Your task to perform on an android device: turn off data saver in the chrome app Image 0: 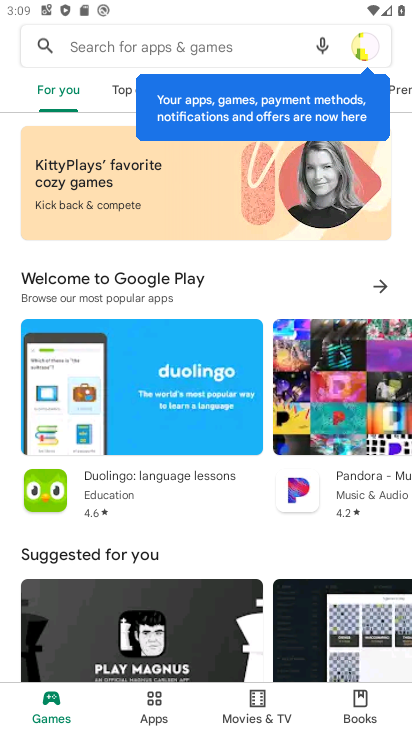
Step 0: press home button
Your task to perform on an android device: turn off data saver in the chrome app Image 1: 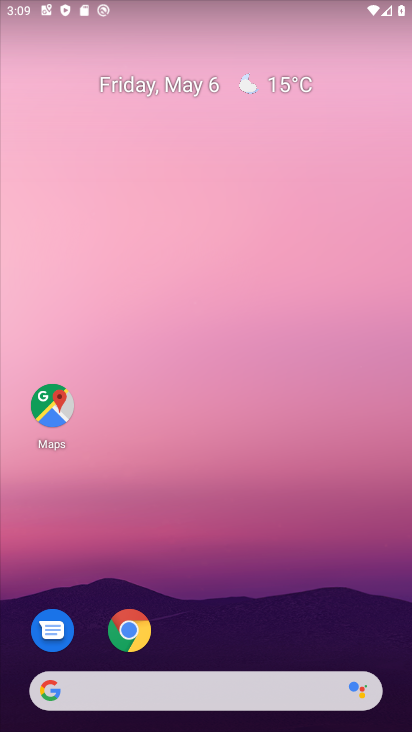
Step 1: click (125, 626)
Your task to perform on an android device: turn off data saver in the chrome app Image 2: 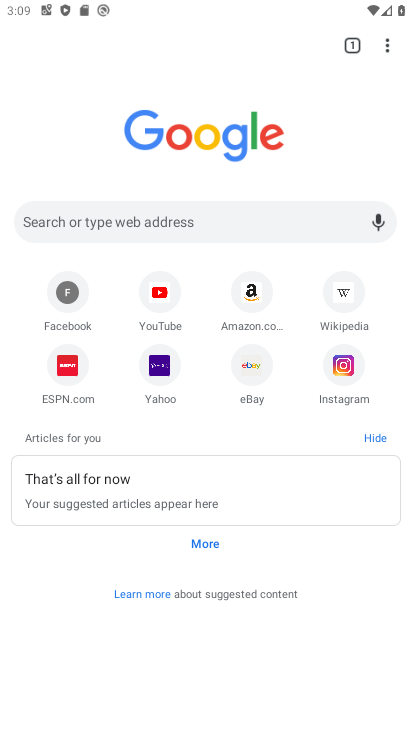
Step 2: click (384, 37)
Your task to perform on an android device: turn off data saver in the chrome app Image 3: 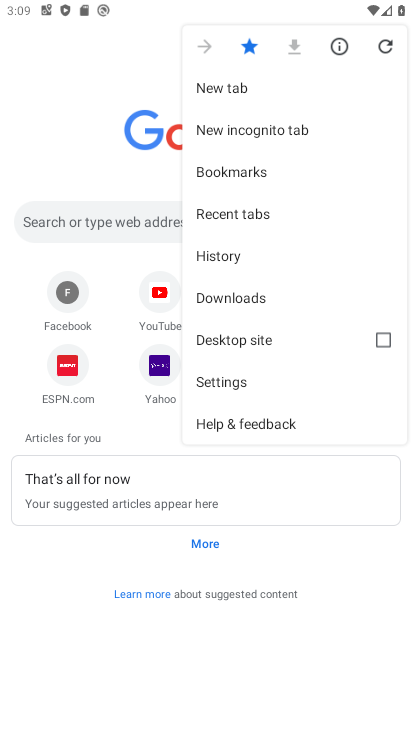
Step 3: click (231, 392)
Your task to perform on an android device: turn off data saver in the chrome app Image 4: 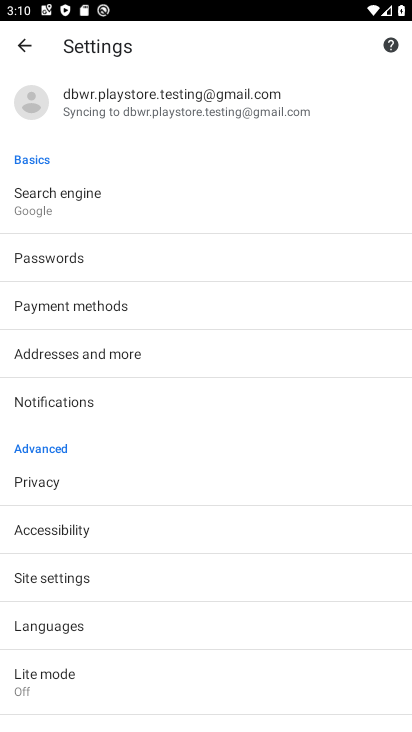
Step 4: click (73, 686)
Your task to perform on an android device: turn off data saver in the chrome app Image 5: 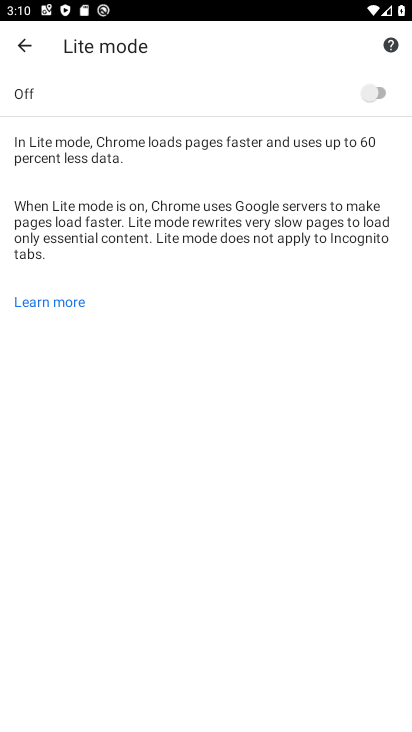
Step 5: task complete